Your task to perform on an android device: turn on location history Image 0: 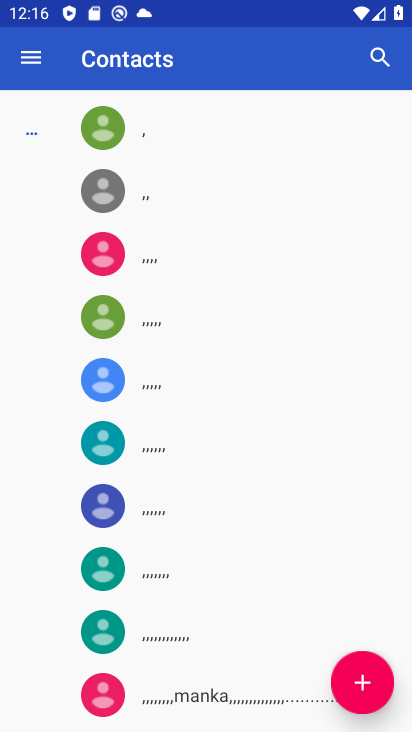
Step 0: press home button
Your task to perform on an android device: turn on location history Image 1: 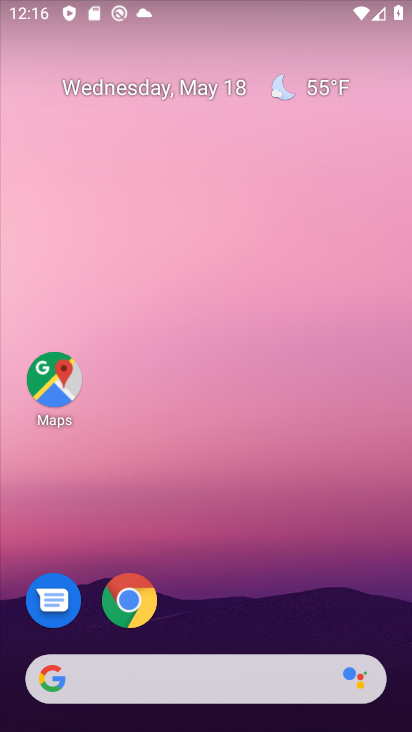
Step 1: drag from (168, 642) to (146, 63)
Your task to perform on an android device: turn on location history Image 2: 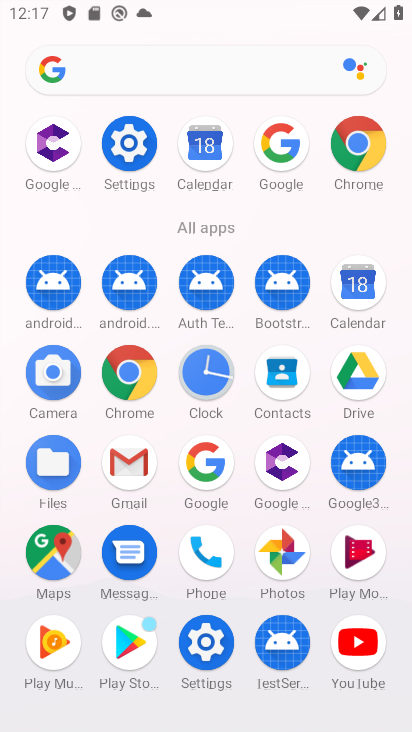
Step 2: click (135, 164)
Your task to perform on an android device: turn on location history Image 3: 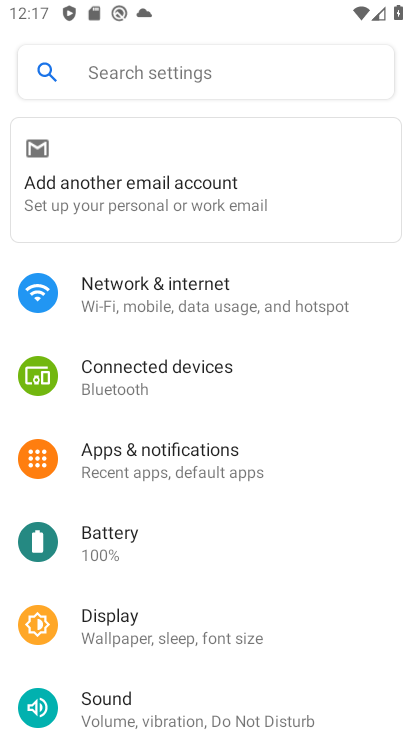
Step 3: drag from (198, 607) to (219, 47)
Your task to perform on an android device: turn on location history Image 4: 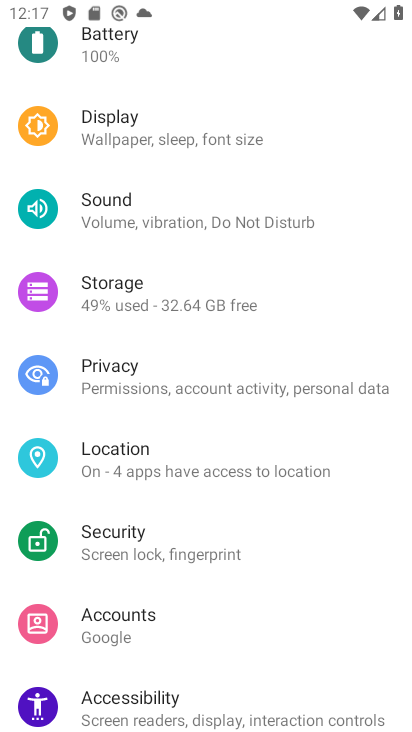
Step 4: drag from (187, 634) to (228, 68)
Your task to perform on an android device: turn on location history Image 5: 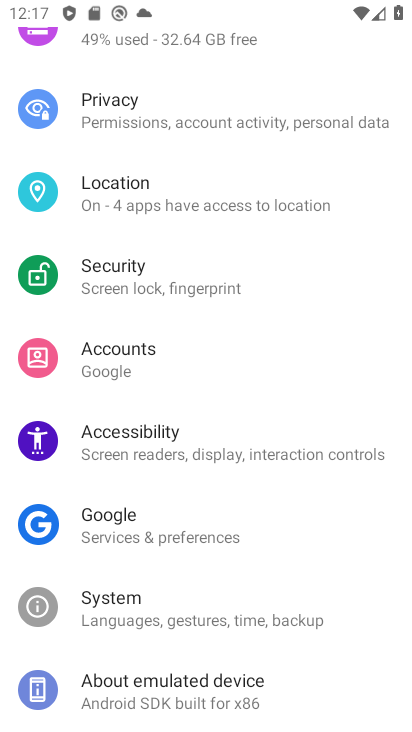
Step 5: click (138, 201)
Your task to perform on an android device: turn on location history Image 6: 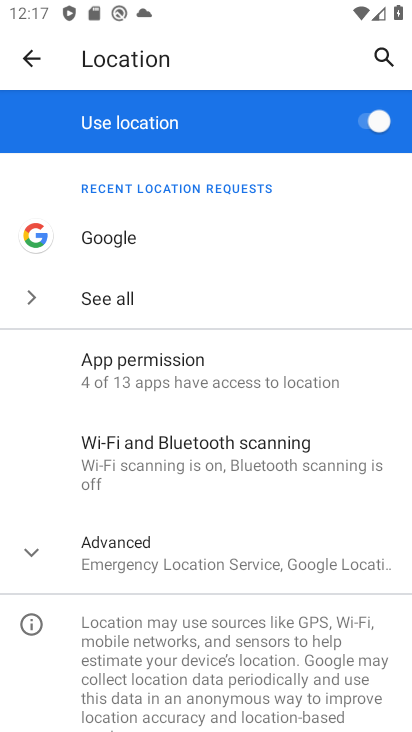
Step 6: click (156, 541)
Your task to perform on an android device: turn on location history Image 7: 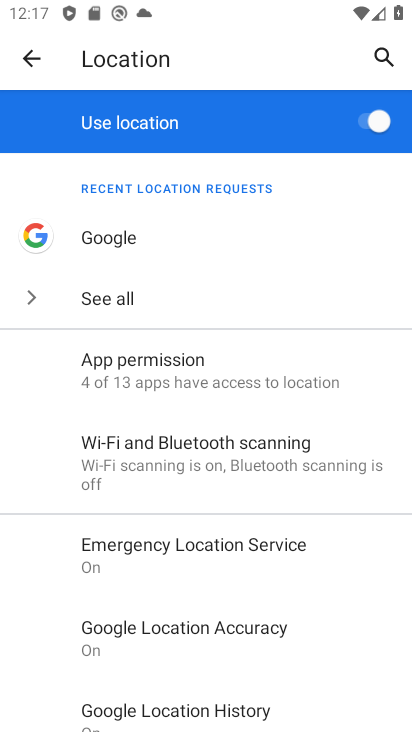
Step 7: click (203, 712)
Your task to perform on an android device: turn on location history Image 8: 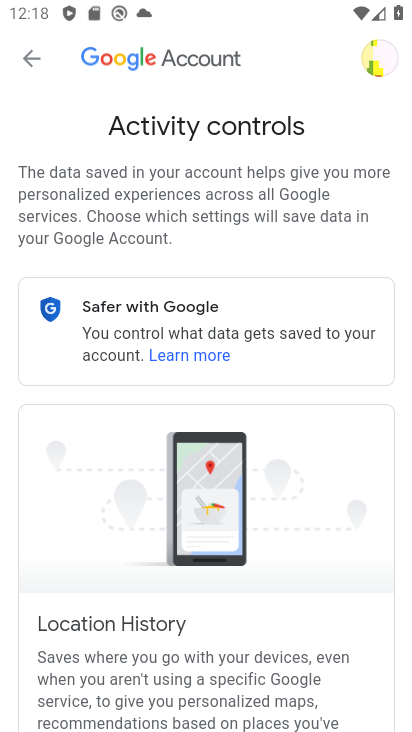
Step 8: task complete